Your task to perform on an android device: find snoozed emails in the gmail app Image 0: 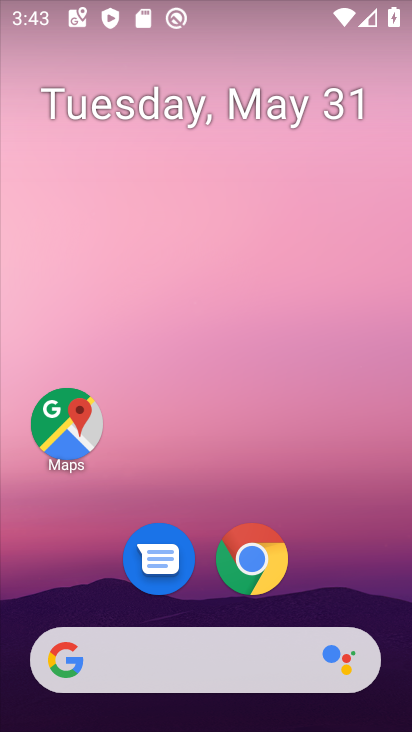
Step 0: drag from (246, 721) to (248, 115)
Your task to perform on an android device: find snoozed emails in the gmail app Image 1: 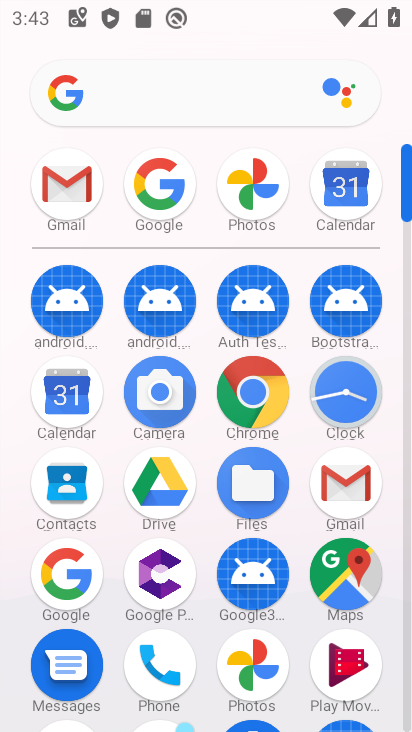
Step 1: click (349, 489)
Your task to perform on an android device: find snoozed emails in the gmail app Image 2: 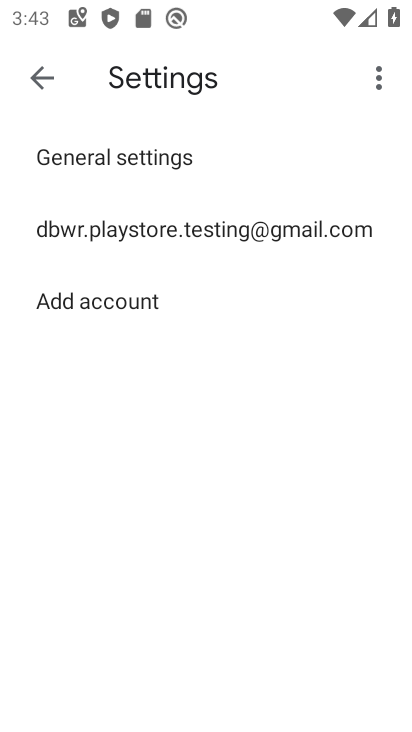
Step 2: click (44, 77)
Your task to perform on an android device: find snoozed emails in the gmail app Image 3: 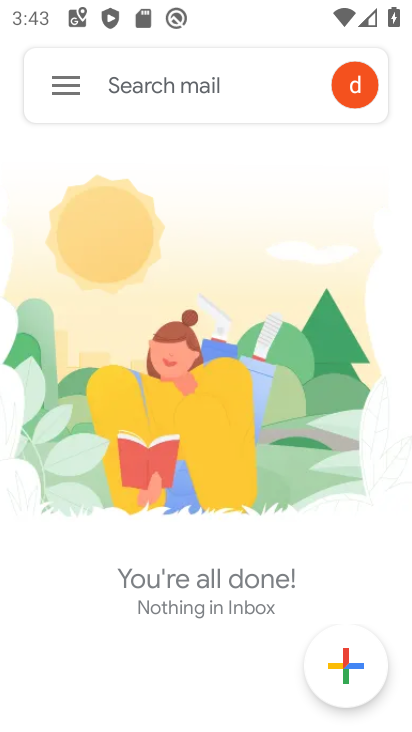
Step 3: click (61, 85)
Your task to perform on an android device: find snoozed emails in the gmail app Image 4: 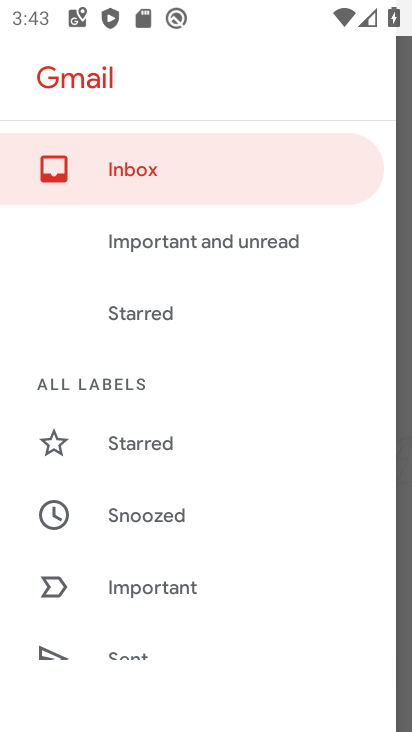
Step 4: click (141, 512)
Your task to perform on an android device: find snoozed emails in the gmail app Image 5: 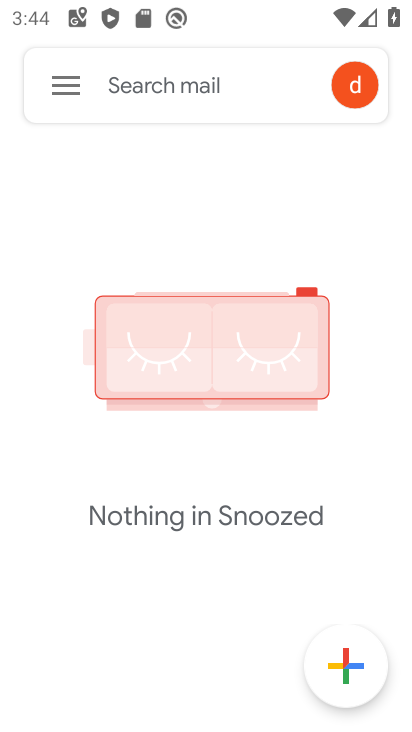
Step 5: task complete